Your task to perform on an android device: install app "File Manager" Image 0: 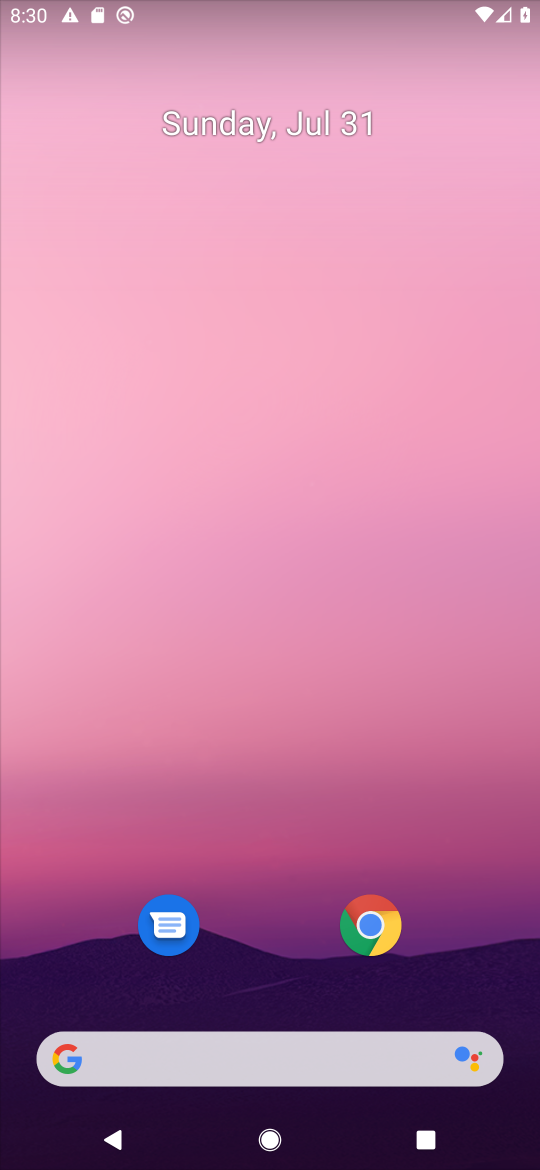
Step 0: drag from (269, 957) to (389, 20)
Your task to perform on an android device: install app "File Manager" Image 1: 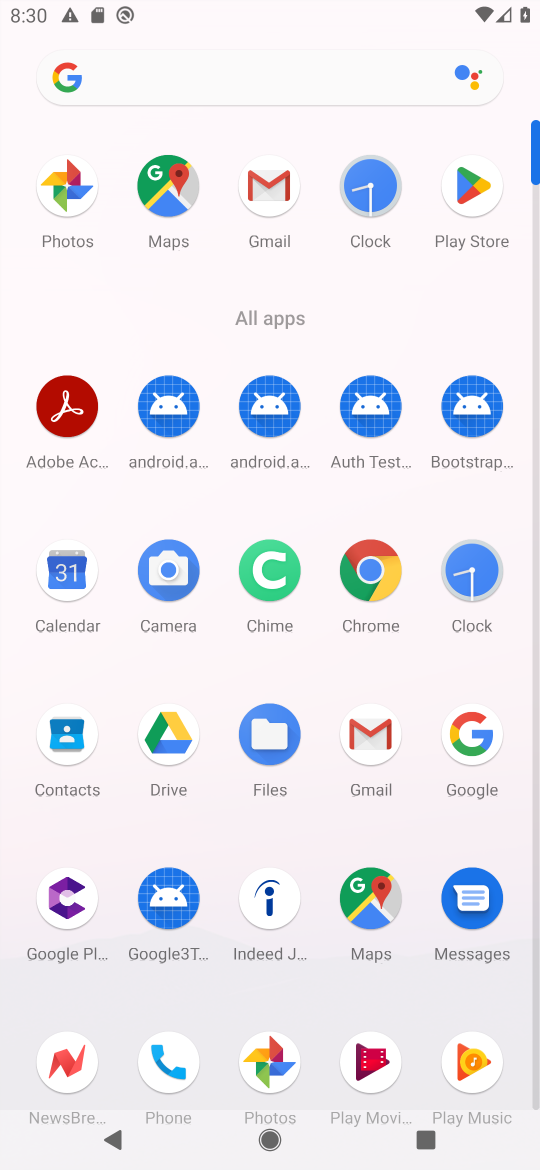
Step 1: click (463, 205)
Your task to perform on an android device: install app "File Manager" Image 2: 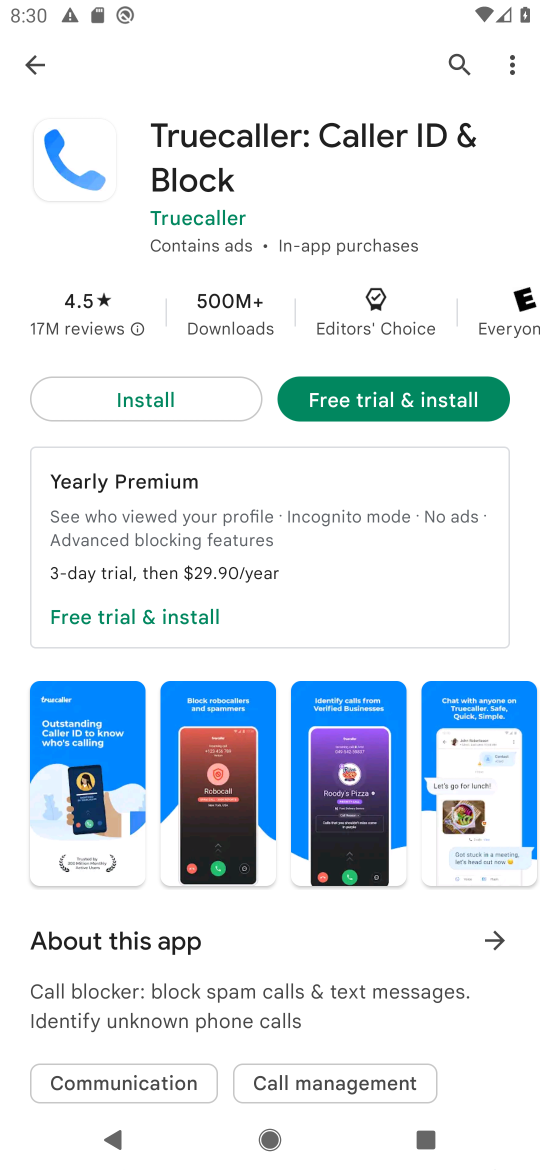
Step 2: click (450, 44)
Your task to perform on an android device: install app "File Manager" Image 3: 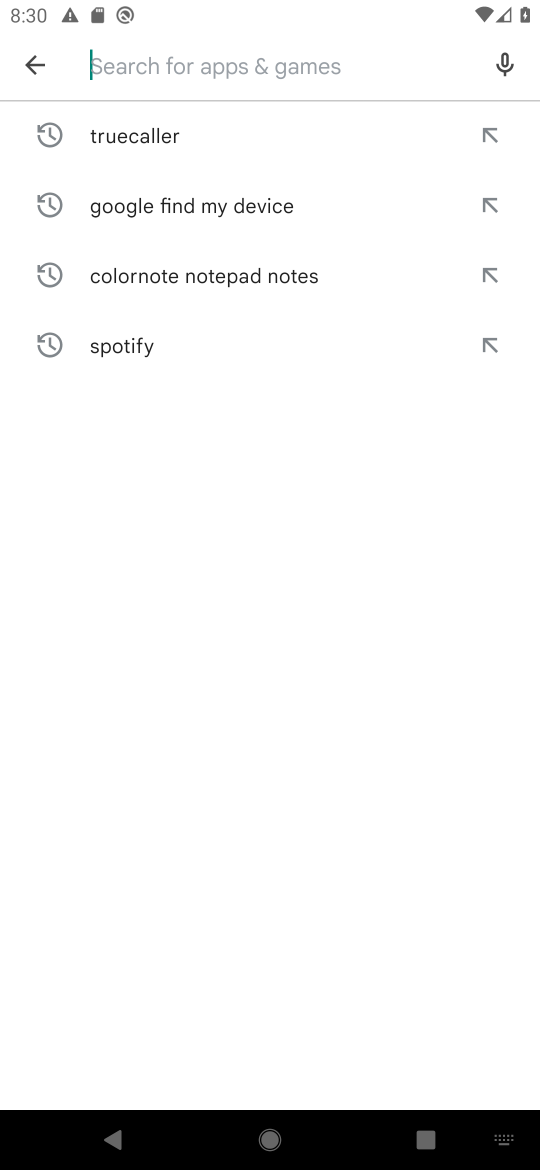
Step 3: type "file manager"
Your task to perform on an android device: install app "File Manager" Image 4: 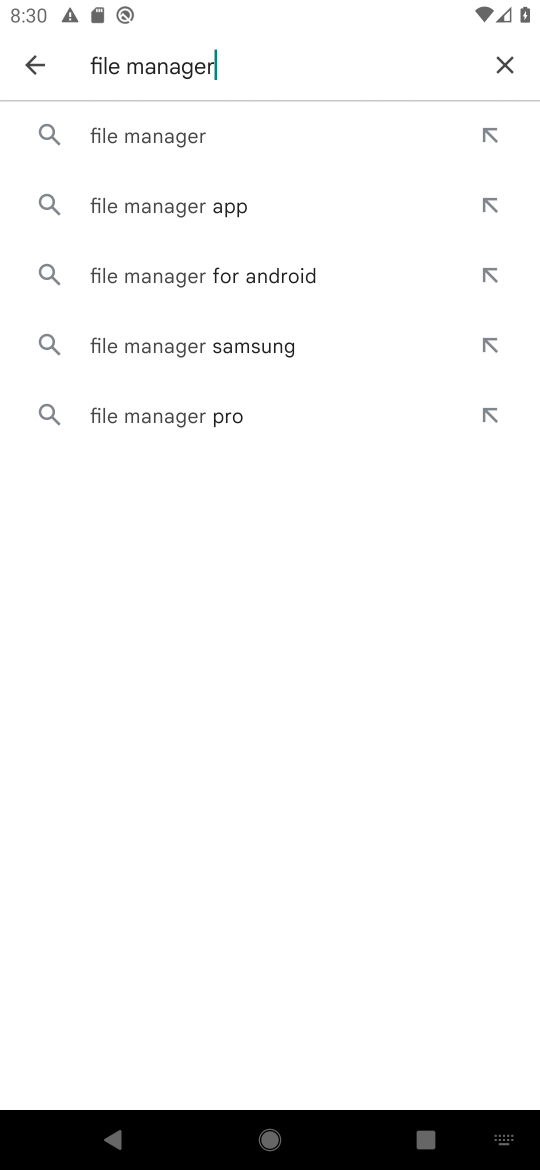
Step 4: click (283, 126)
Your task to perform on an android device: install app "File Manager" Image 5: 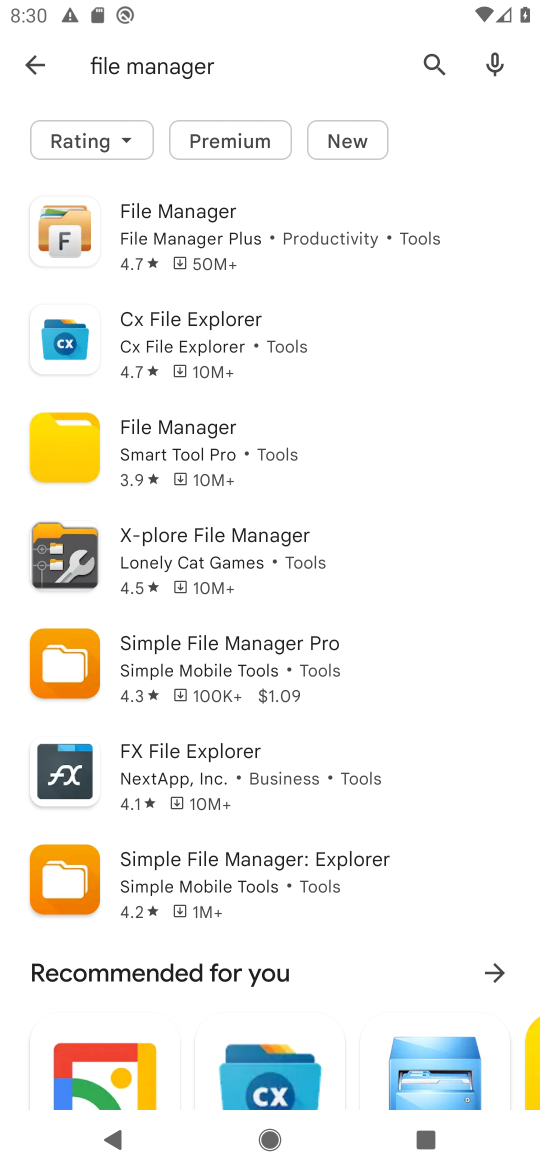
Step 5: click (229, 236)
Your task to perform on an android device: install app "File Manager" Image 6: 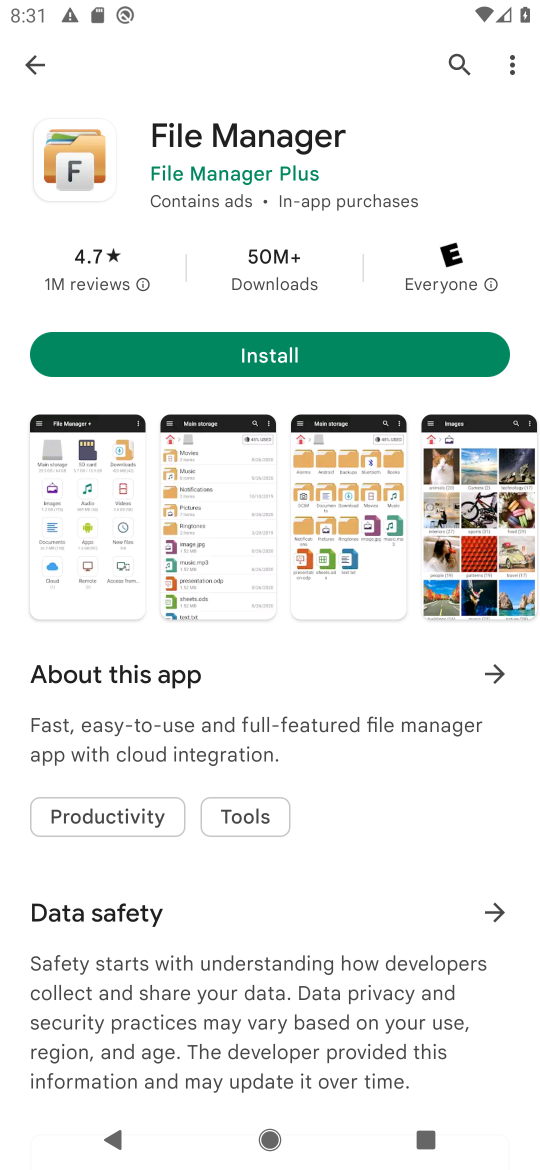
Step 6: click (230, 352)
Your task to perform on an android device: install app "File Manager" Image 7: 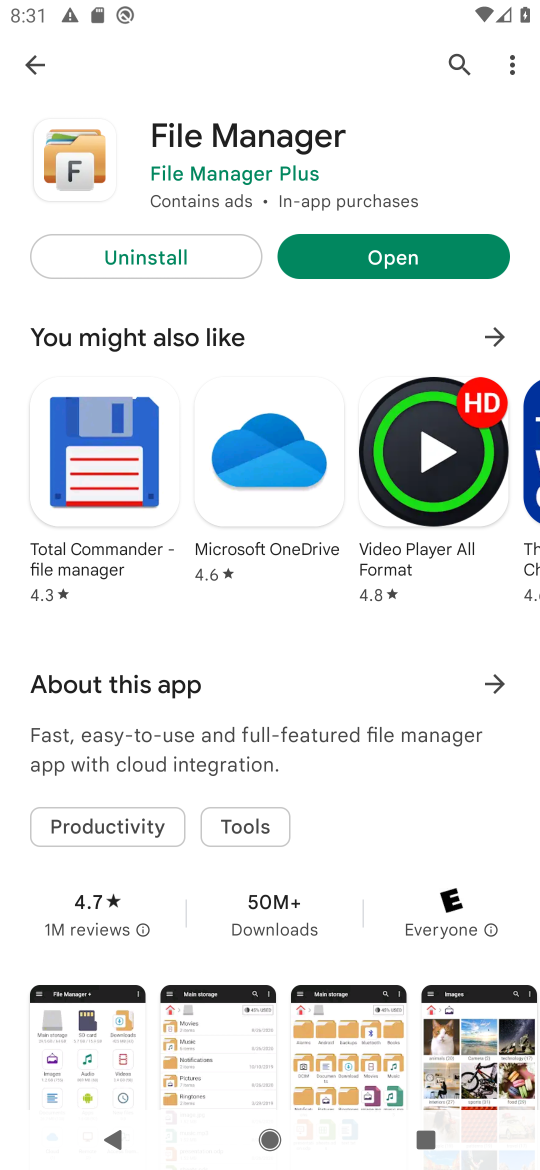
Step 7: task complete